Your task to perform on an android device: check battery use Image 0: 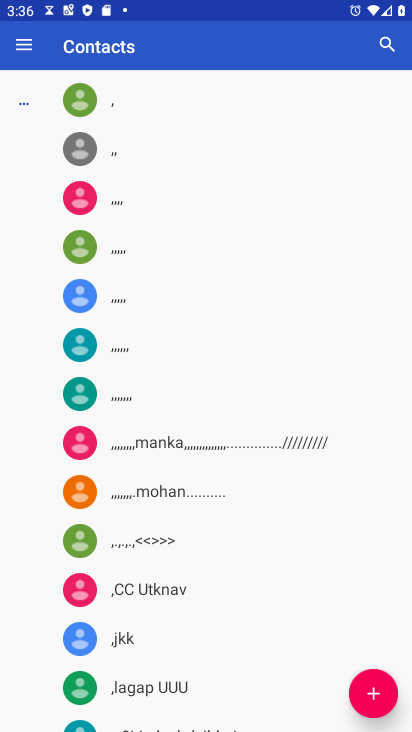
Step 0: press home button
Your task to perform on an android device: check battery use Image 1: 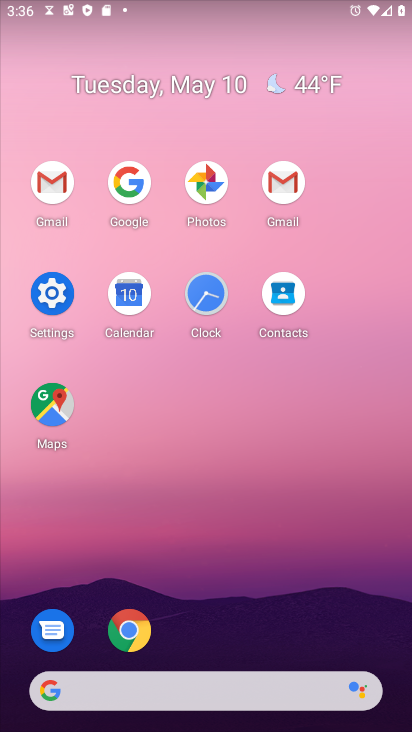
Step 1: click (57, 300)
Your task to perform on an android device: check battery use Image 2: 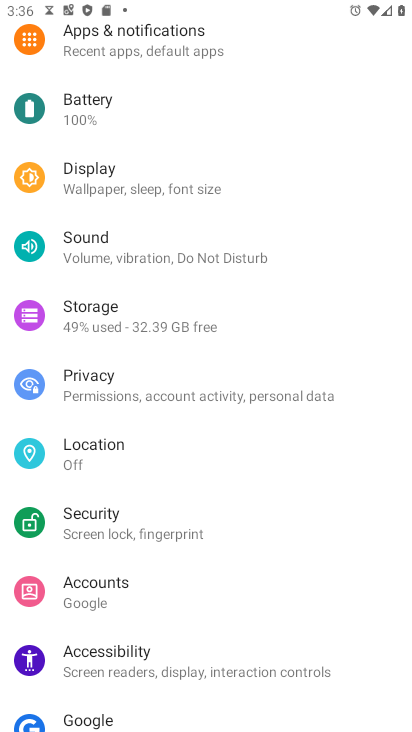
Step 2: click (153, 122)
Your task to perform on an android device: check battery use Image 3: 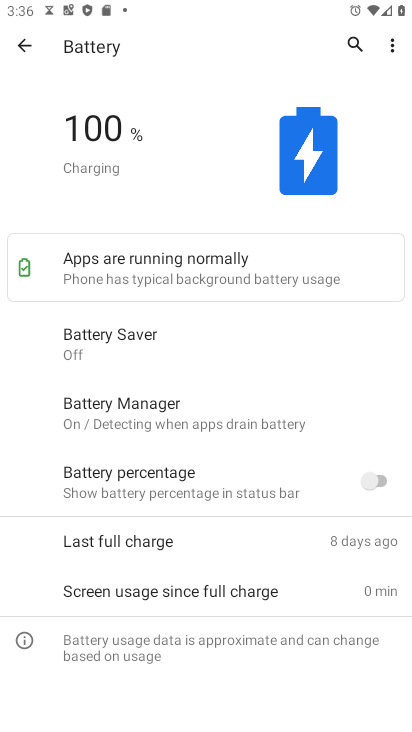
Step 3: click (392, 50)
Your task to perform on an android device: check battery use Image 4: 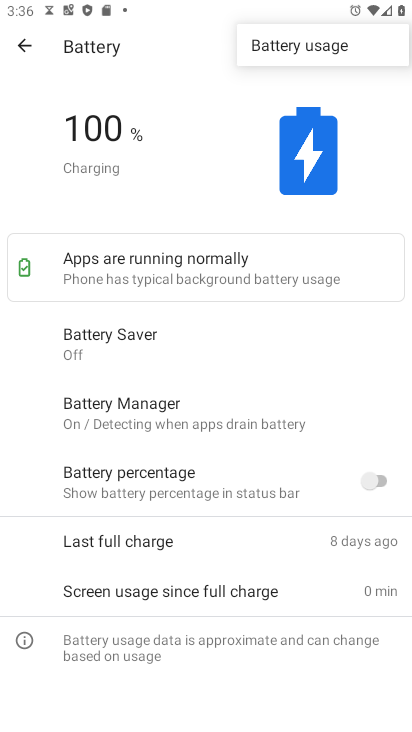
Step 4: click (338, 39)
Your task to perform on an android device: check battery use Image 5: 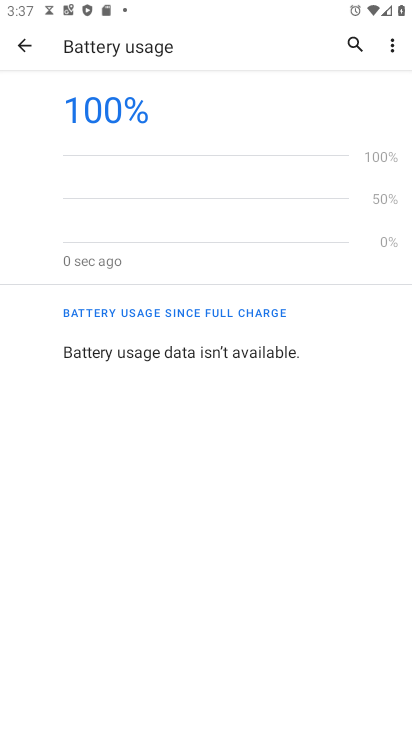
Step 5: task complete